Your task to perform on an android device: check data usage Image 0: 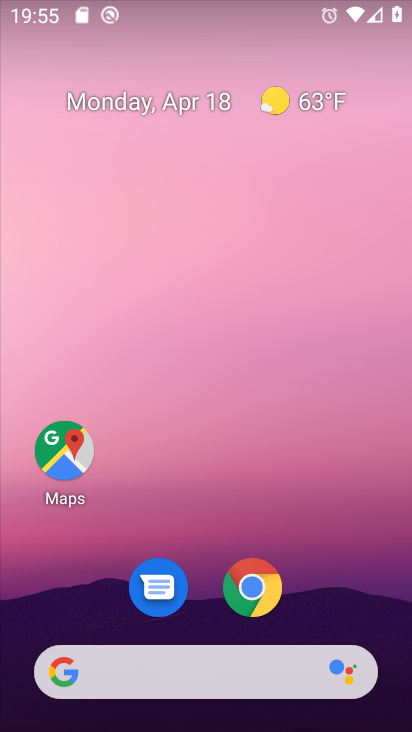
Step 0: drag from (328, 607) to (316, 181)
Your task to perform on an android device: check data usage Image 1: 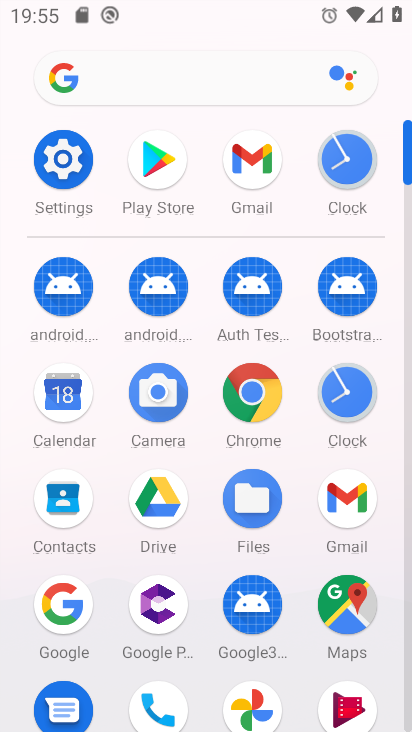
Step 1: click (75, 192)
Your task to perform on an android device: check data usage Image 2: 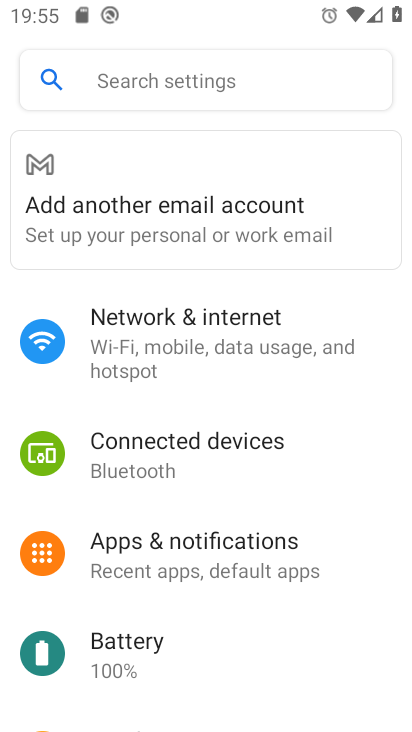
Step 2: click (264, 329)
Your task to perform on an android device: check data usage Image 3: 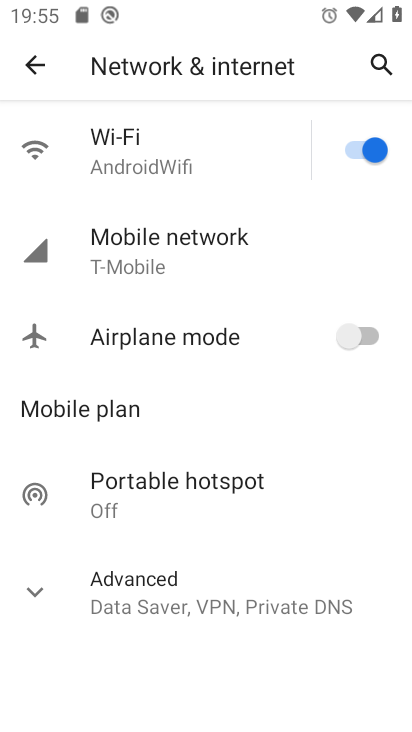
Step 3: click (147, 272)
Your task to perform on an android device: check data usage Image 4: 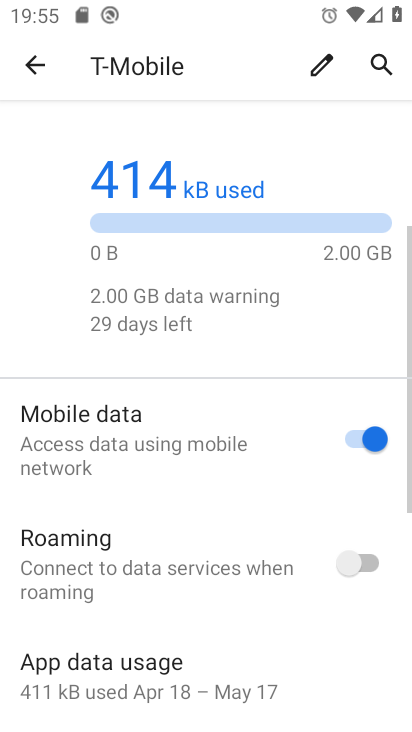
Step 4: task complete